Your task to perform on an android device: delete the emails in spam in the gmail app Image 0: 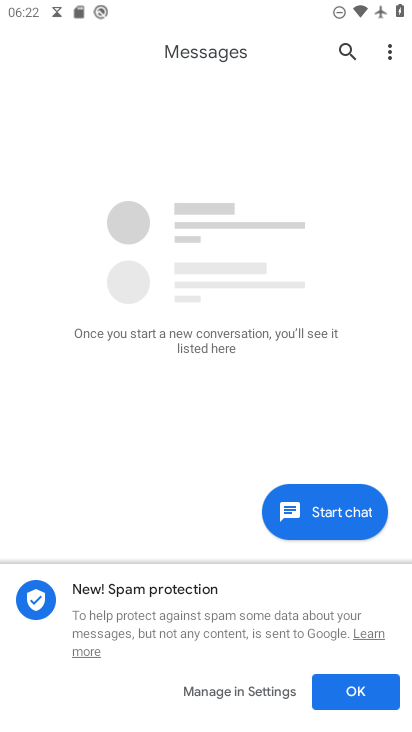
Step 0: press home button
Your task to perform on an android device: delete the emails in spam in the gmail app Image 1: 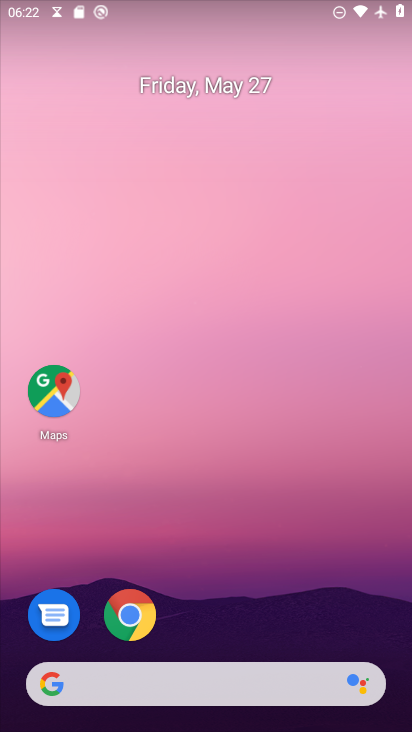
Step 1: drag from (274, 612) to (194, 0)
Your task to perform on an android device: delete the emails in spam in the gmail app Image 2: 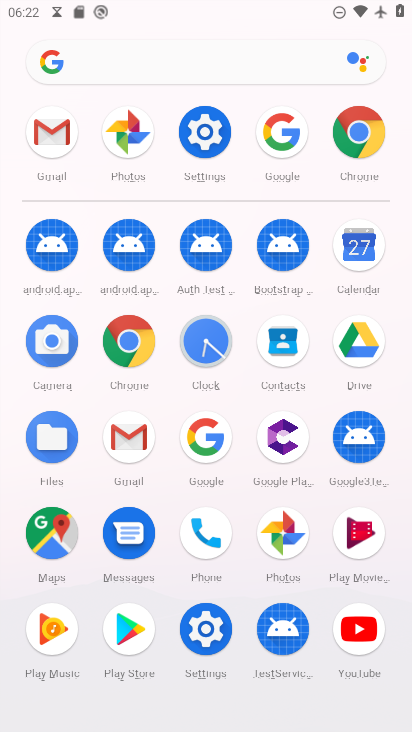
Step 2: click (136, 439)
Your task to perform on an android device: delete the emails in spam in the gmail app Image 3: 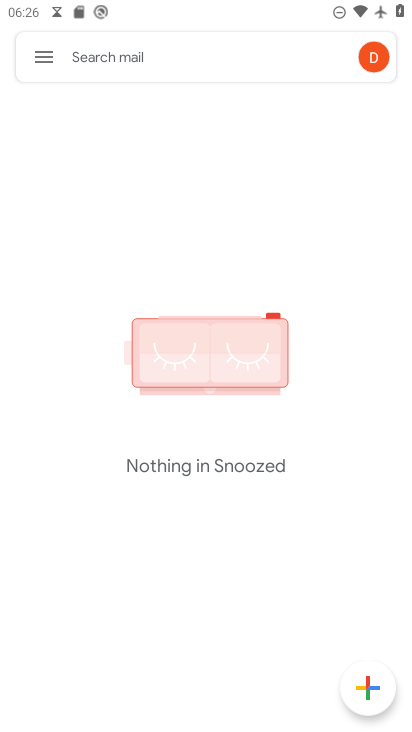
Step 3: task complete